Your task to perform on an android device: Open Google Maps and go to "Timeline" Image 0: 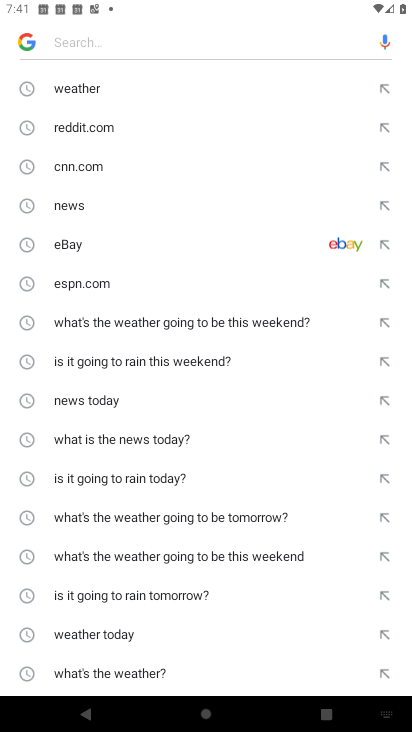
Step 0: press home button
Your task to perform on an android device: Open Google Maps and go to "Timeline" Image 1: 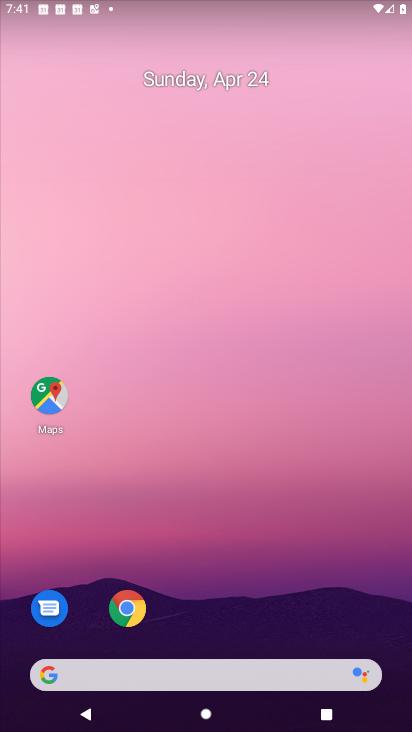
Step 1: drag from (222, 566) to (159, 227)
Your task to perform on an android device: Open Google Maps and go to "Timeline" Image 2: 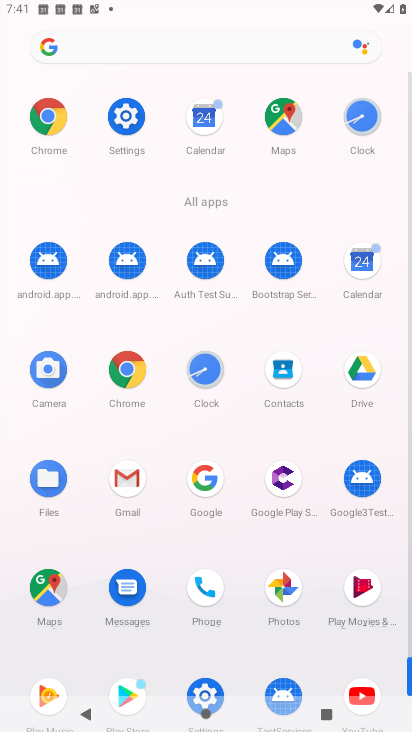
Step 2: click (50, 571)
Your task to perform on an android device: Open Google Maps and go to "Timeline" Image 3: 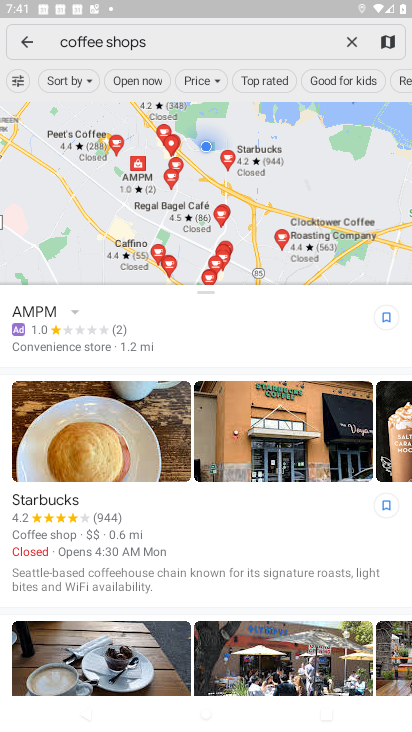
Step 3: click (28, 43)
Your task to perform on an android device: Open Google Maps and go to "Timeline" Image 4: 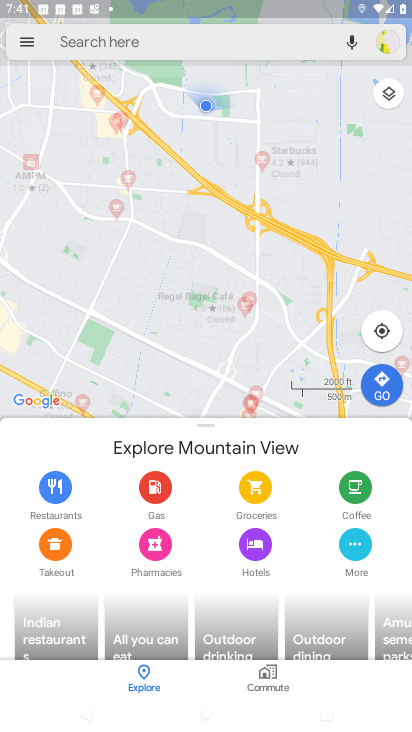
Step 4: click (27, 42)
Your task to perform on an android device: Open Google Maps and go to "Timeline" Image 5: 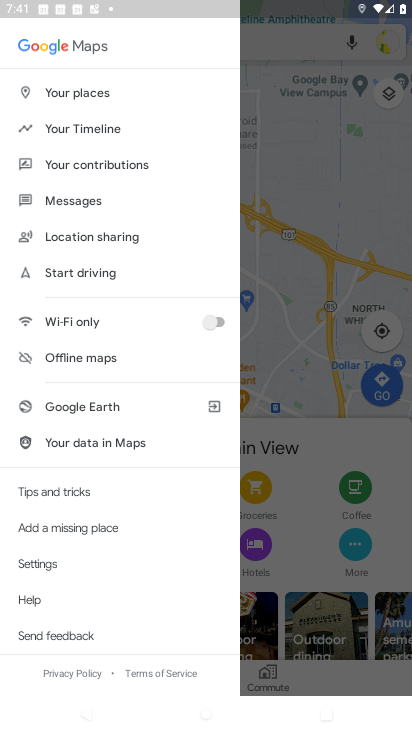
Step 5: click (79, 125)
Your task to perform on an android device: Open Google Maps and go to "Timeline" Image 6: 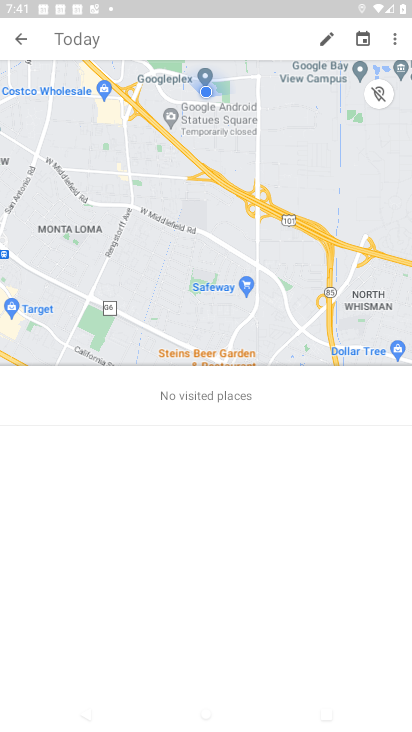
Step 6: task complete